Your task to perform on an android device: empty trash in the gmail app Image 0: 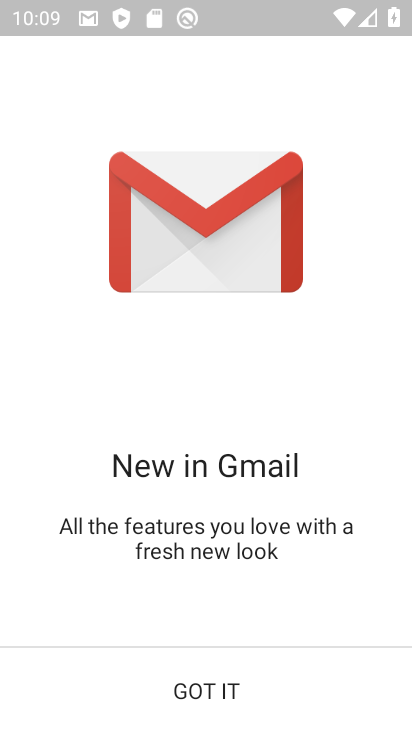
Step 0: press home button
Your task to perform on an android device: empty trash in the gmail app Image 1: 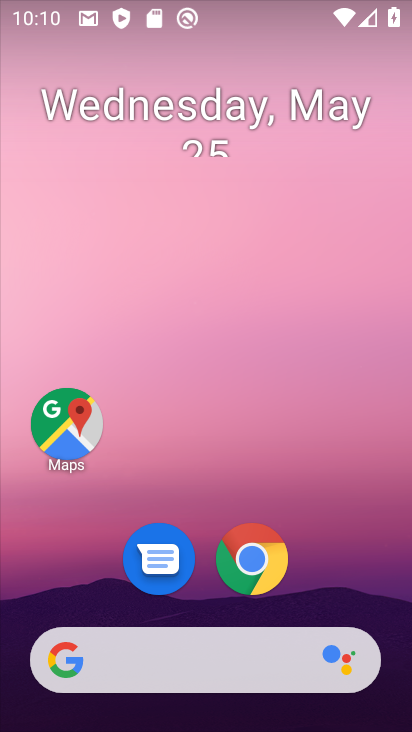
Step 1: drag from (306, 522) to (278, 287)
Your task to perform on an android device: empty trash in the gmail app Image 2: 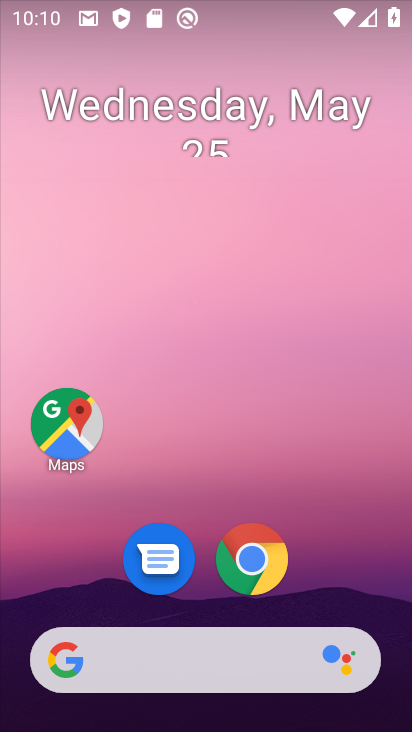
Step 2: drag from (379, 568) to (385, 148)
Your task to perform on an android device: empty trash in the gmail app Image 3: 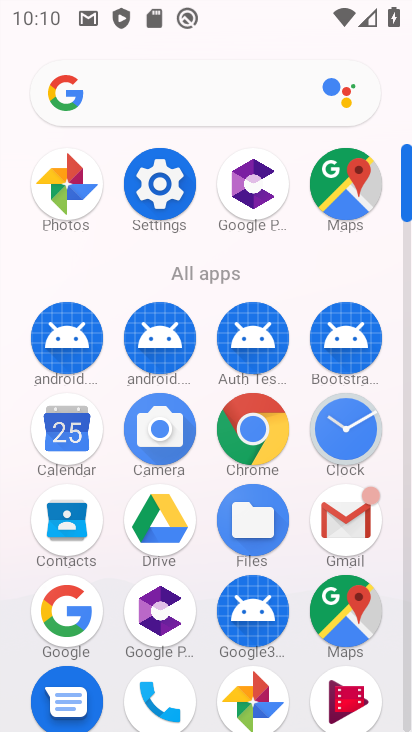
Step 3: click (359, 521)
Your task to perform on an android device: empty trash in the gmail app Image 4: 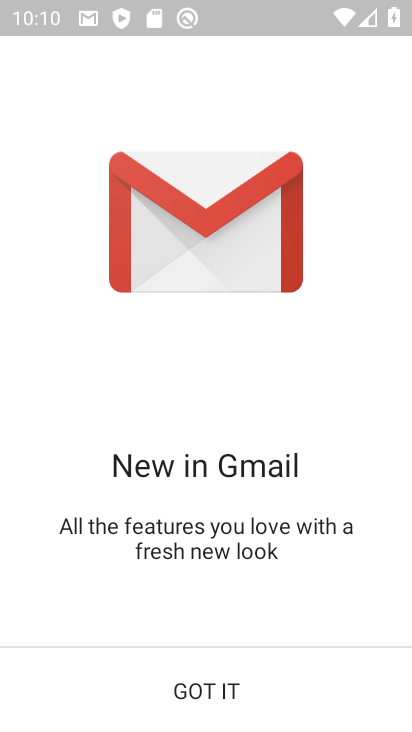
Step 4: click (223, 681)
Your task to perform on an android device: empty trash in the gmail app Image 5: 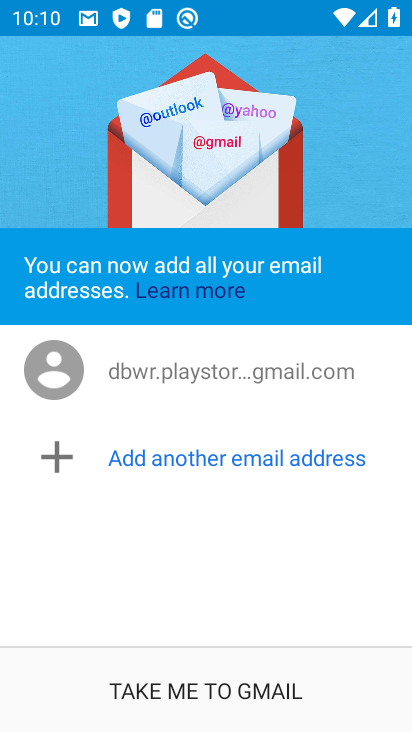
Step 5: click (233, 678)
Your task to perform on an android device: empty trash in the gmail app Image 6: 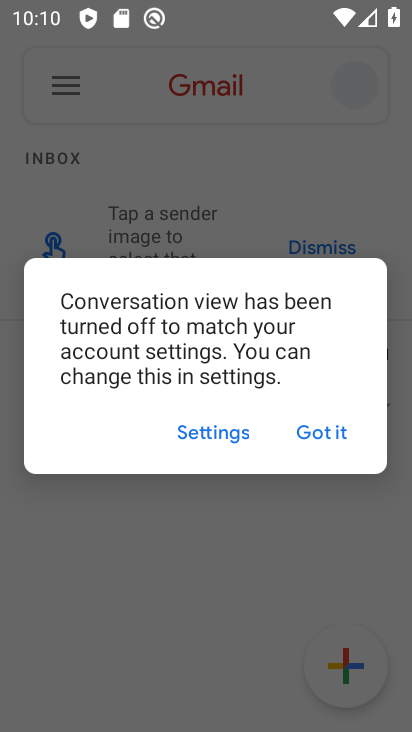
Step 6: click (326, 435)
Your task to perform on an android device: empty trash in the gmail app Image 7: 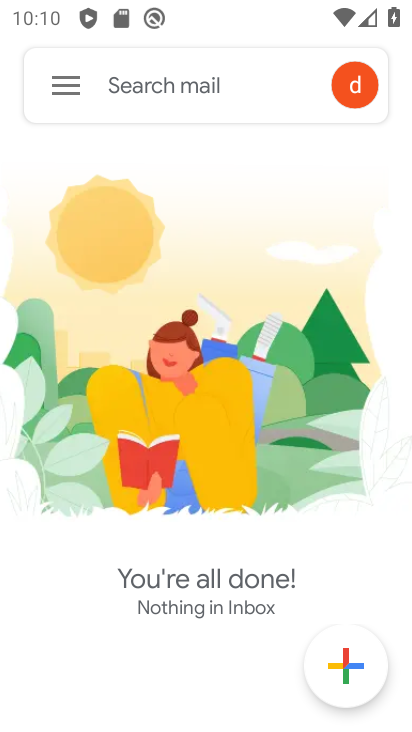
Step 7: click (66, 92)
Your task to perform on an android device: empty trash in the gmail app Image 8: 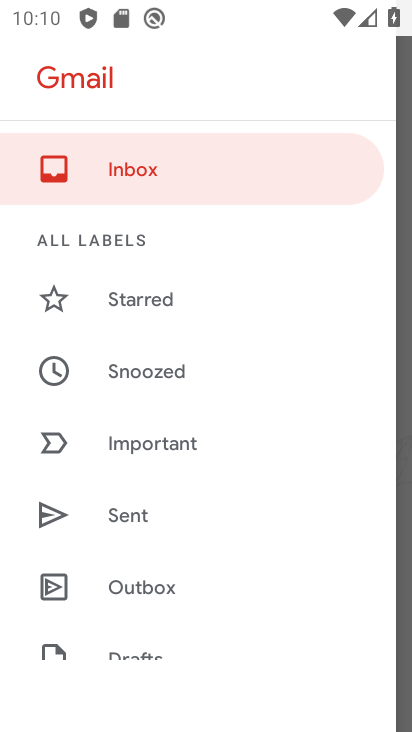
Step 8: drag from (233, 644) to (213, 309)
Your task to perform on an android device: empty trash in the gmail app Image 9: 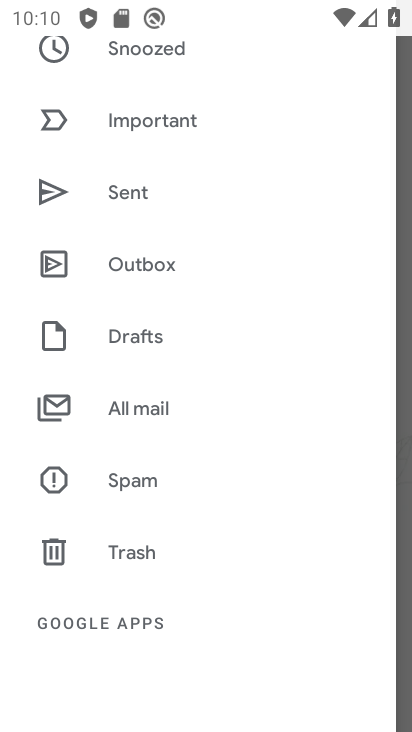
Step 9: click (106, 554)
Your task to perform on an android device: empty trash in the gmail app Image 10: 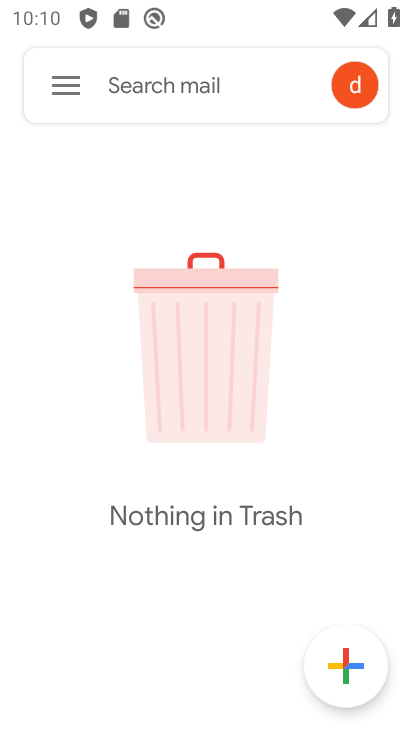
Step 10: task complete